Your task to perform on an android device: Open CNN.com Image 0: 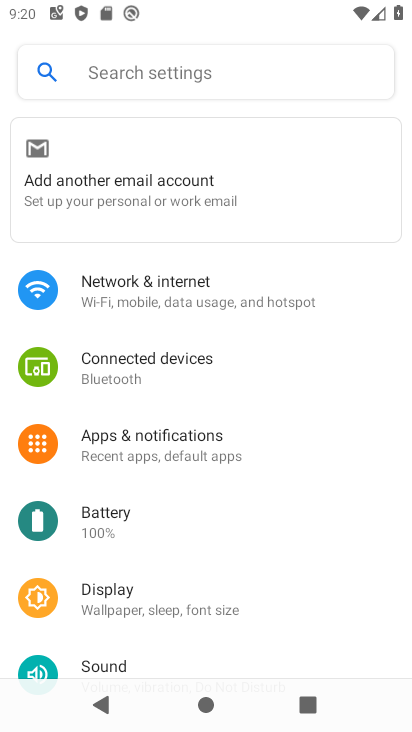
Step 0: press home button
Your task to perform on an android device: Open CNN.com Image 1: 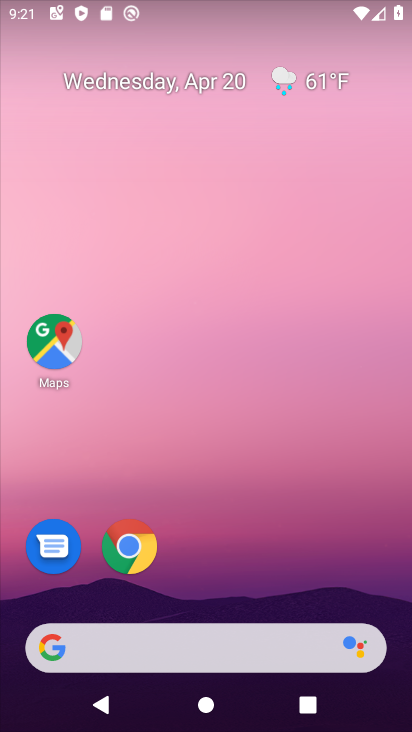
Step 1: click (123, 551)
Your task to perform on an android device: Open CNN.com Image 2: 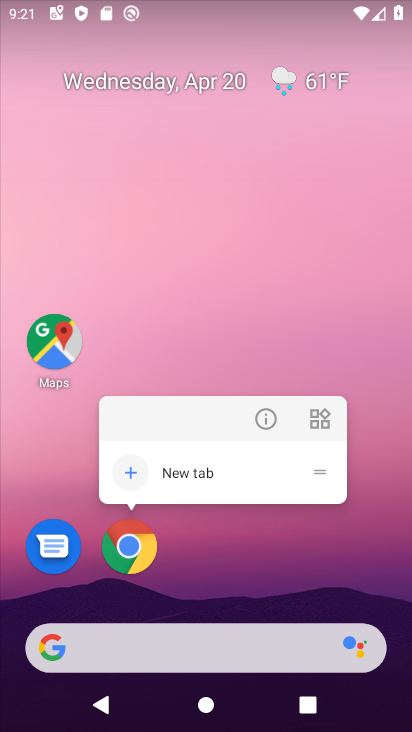
Step 2: click (125, 551)
Your task to perform on an android device: Open CNN.com Image 3: 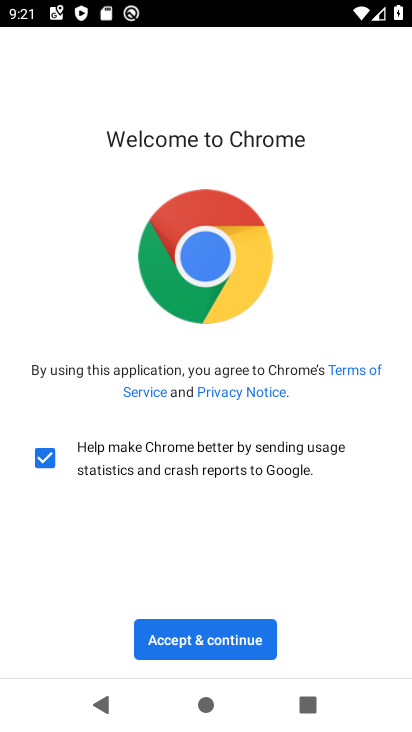
Step 3: click (230, 644)
Your task to perform on an android device: Open CNN.com Image 4: 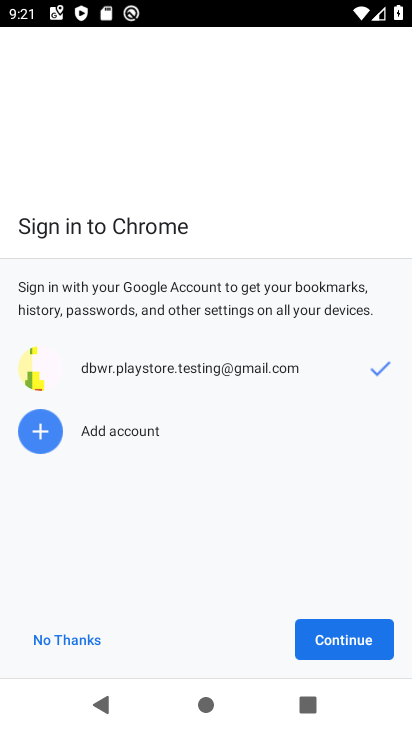
Step 4: click (340, 646)
Your task to perform on an android device: Open CNN.com Image 5: 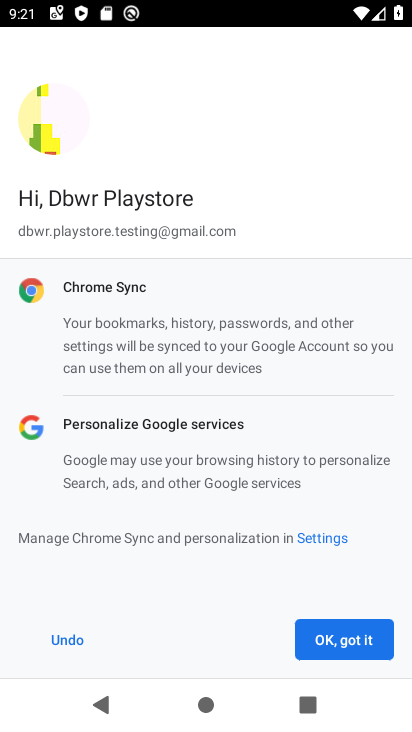
Step 5: click (340, 646)
Your task to perform on an android device: Open CNN.com Image 6: 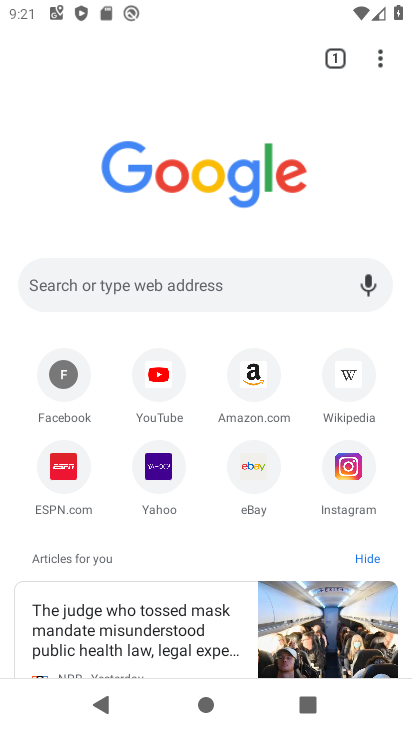
Step 6: click (153, 283)
Your task to perform on an android device: Open CNN.com Image 7: 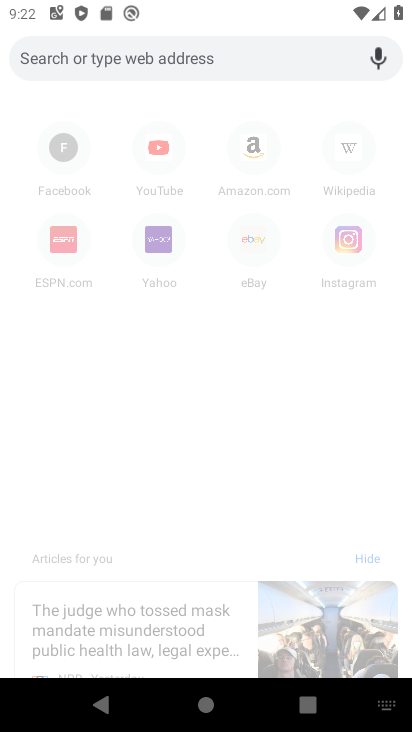
Step 7: type "cnn.com"
Your task to perform on an android device: Open CNN.com Image 8: 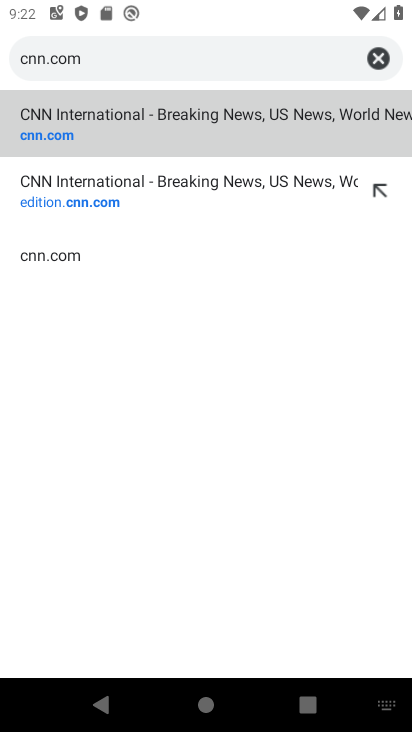
Step 8: click (48, 118)
Your task to perform on an android device: Open CNN.com Image 9: 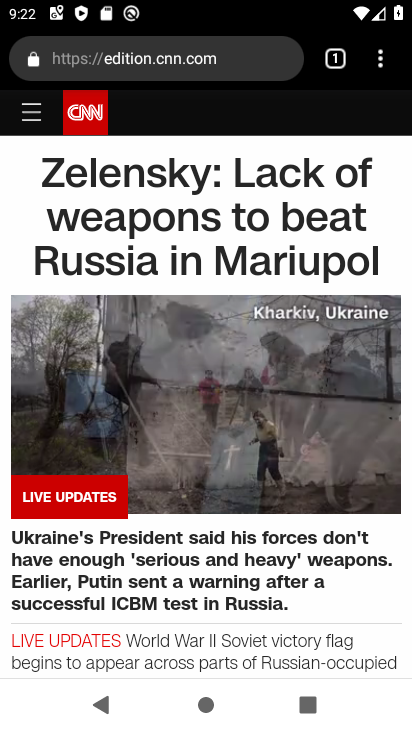
Step 9: task complete